Your task to perform on an android device: toggle javascript in the chrome app Image 0: 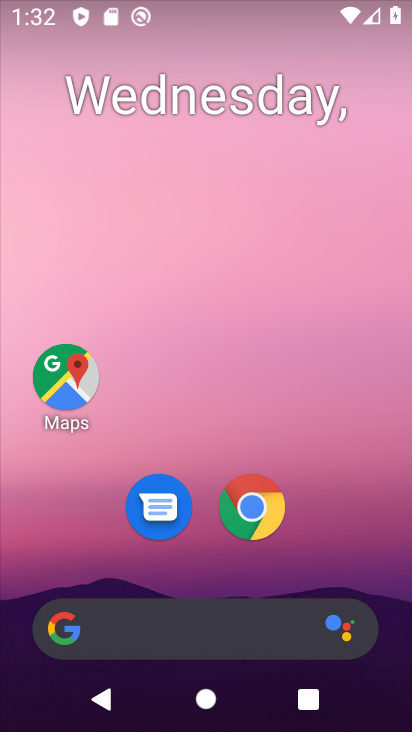
Step 0: click (264, 497)
Your task to perform on an android device: toggle javascript in the chrome app Image 1: 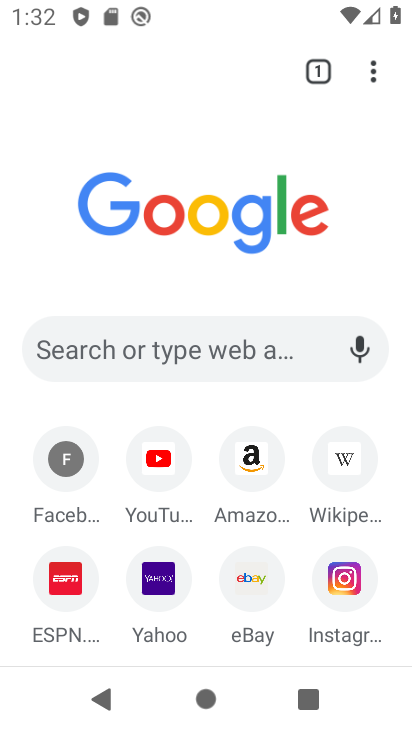
Step 1: click (366, 70)
Your task to perform on an android device: toggle javascript in the chrome app Image 2: 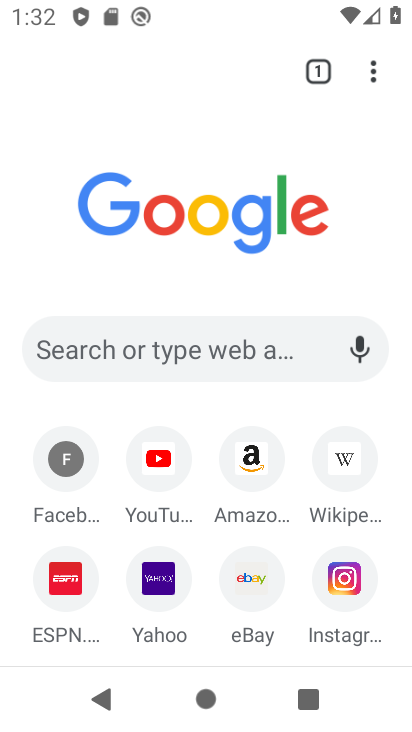
Step 2: click (375, 66)
Your task to perform on an android device: toggle javascript in the chrome app Image 3: 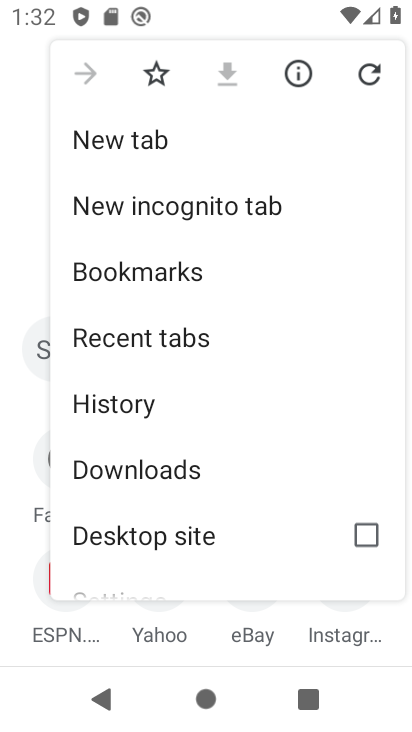
Step 3: drag from (232, 439) to (156, 556)
Your task to perform on an android device: toggle javascript in the chrome app Image 4: 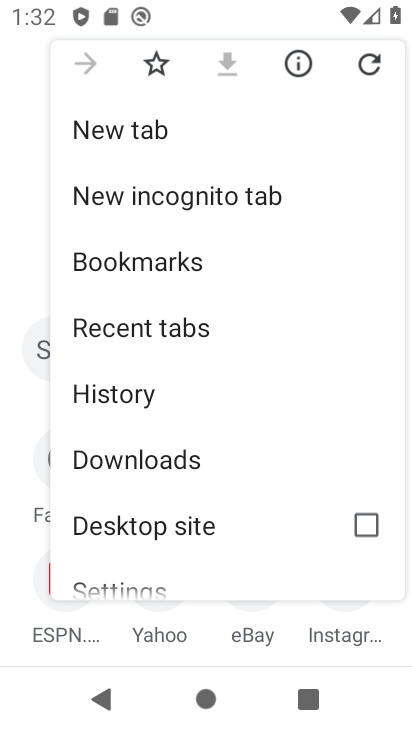
Step 4: click (158, 543)
Your task to perform on an android device: toggle javascript in the chrome app Image 5: 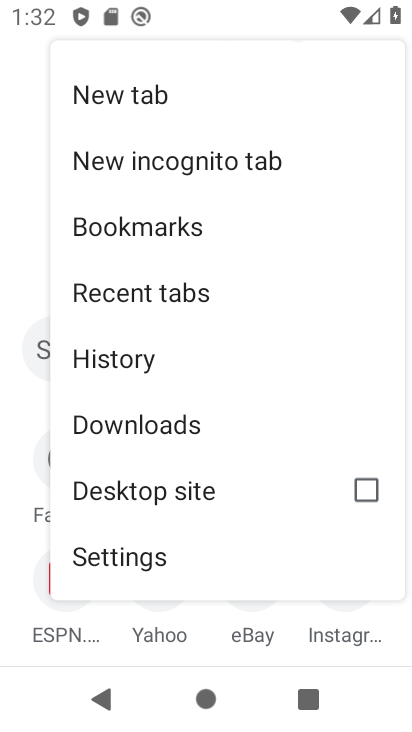
Step 5: click (132, 560)
Your task to perform on an android device: toggle javascript in the chrome app Image 6: 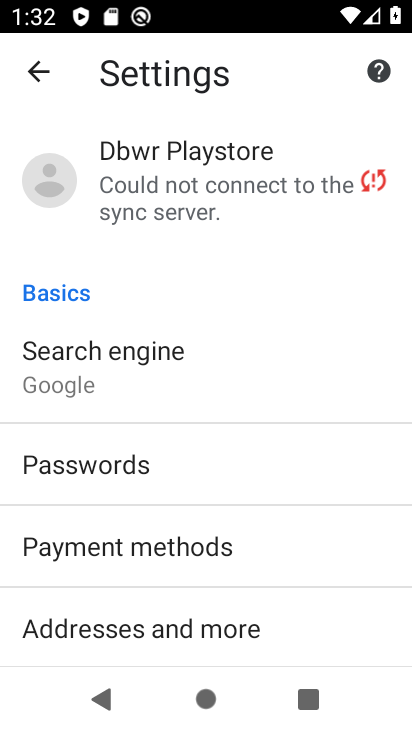
Step 6: drag from (250, 306) to (283, 519)
Your task to perform on an android device: toggle javascript in the chrome app Image 7: 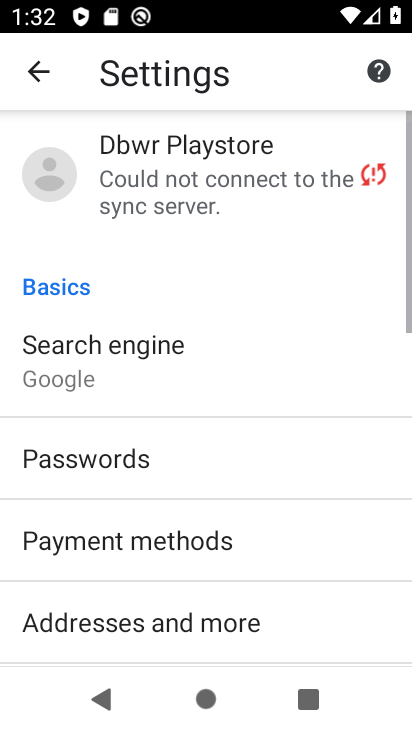
Step 7: drag from (282, 499) to (317, 497)
Your task to perform on an android device: toggle javascript in the chrome app Image 8: 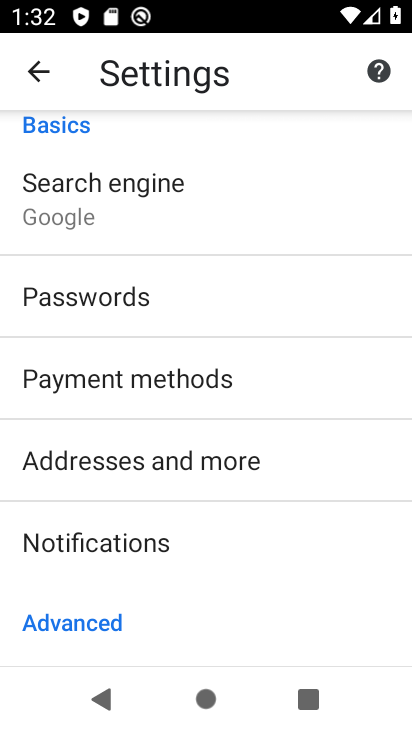
Step 8: drag from (350, 368) to (382, 511)
Your task to perform on an android device: toggle javascript in the chrome app Image 9: 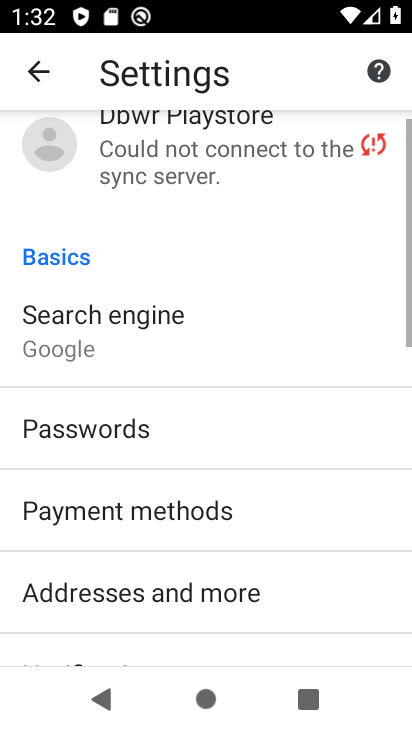
Step 9: drag from (400, 483) to (371, 517)
Your task to perform on an android device: toggle javascript in the chrome app Image 10: 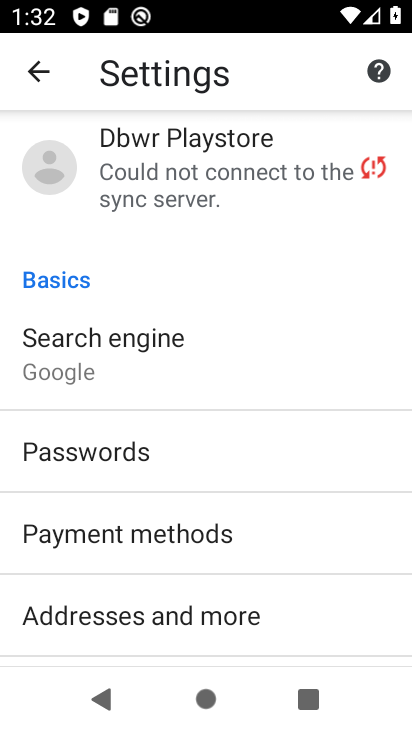
Step 10: drag from (288, 422) to (179, 299)
Your task to perform on an android device: toggle javascript in the chrome app Image 11: 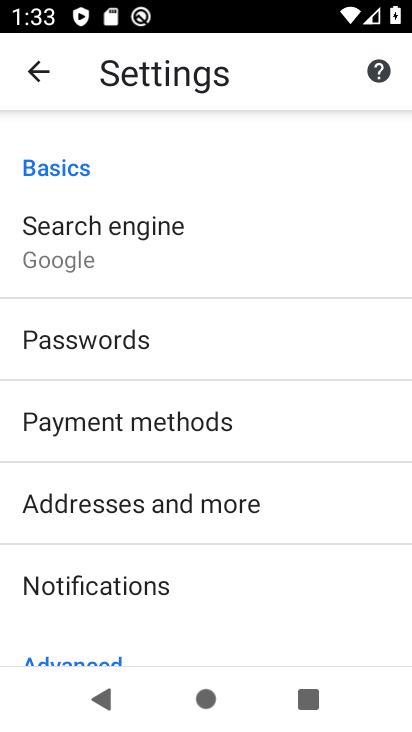
Step 11: click (306, 637)
Your task to perform on an android device: toggle javascript in the chrome app Image 12: 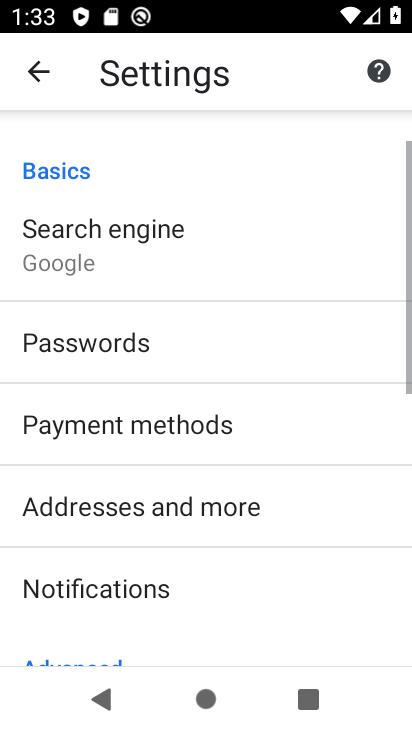
Step 12: drag from (313, 647) to (314, 591)
Your task to perform on an android device: toggle javascript in the chrome app Image 13: 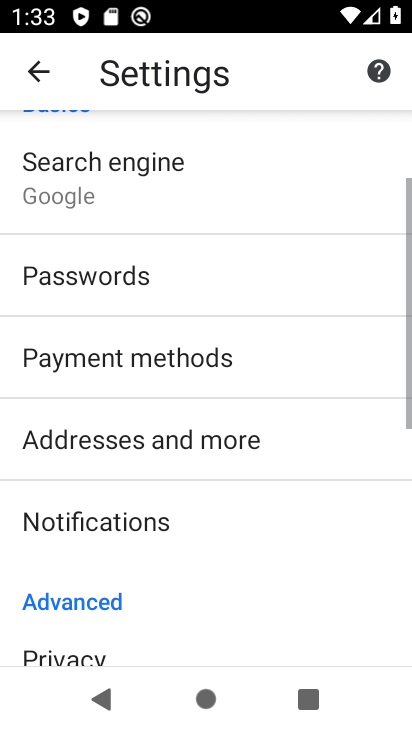
Step 13: click (238, 583)
Your task to perform on an android device: toggle javascript in the chrome app Image 14: 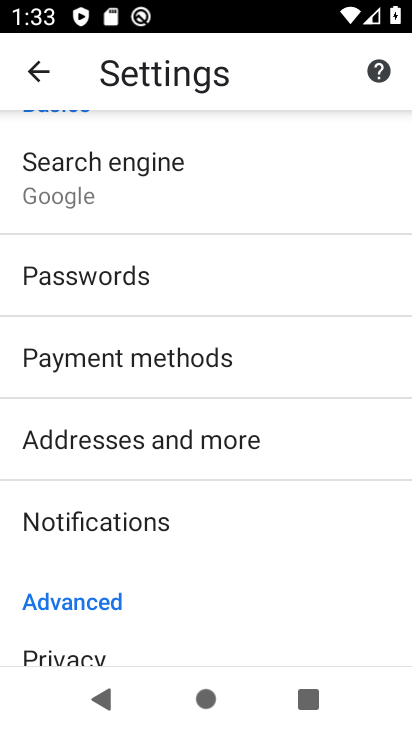
Step 14: click (268, 429)
Your task to perform on an android device: toggle javascript in the chrome app Image 15: 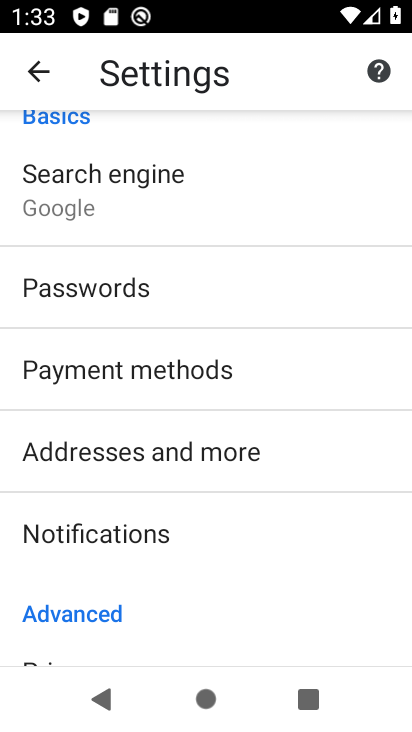
Step 15: click (361, 549)
Your task to perform on an android device: toggle javascript in the chrome app Image 16: 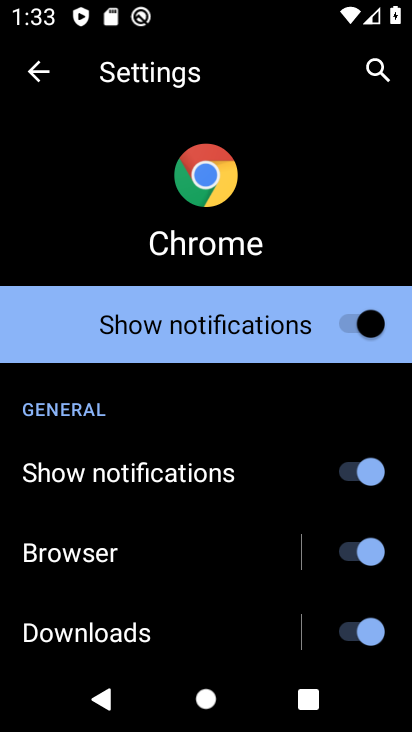
Step 16: click (25, 66)
Your task to perform on an android device: toggle javascript in the chrome app Image 17: 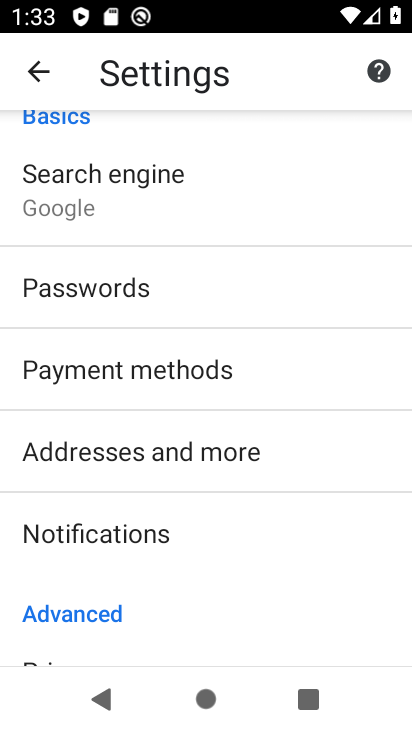
Step 17: drag from (296, 626) to (291, 481)
Your task to perform on an android device: toggle javascript in the chrome app Image 18: 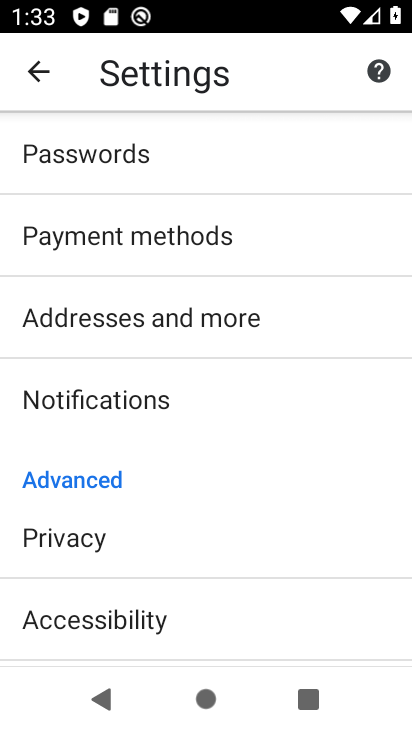
Step 18: drag from (334, 568) to (334, 426)
Your task to perform on an android device: toggle javascript in the chrome app Image 19: 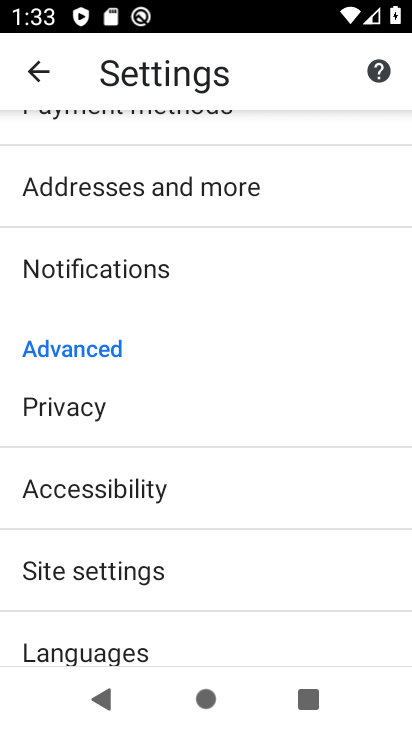
Step 19: click (59, 570)
Your task to perform on an android device: toggle javascript in the chrome app Image 20: 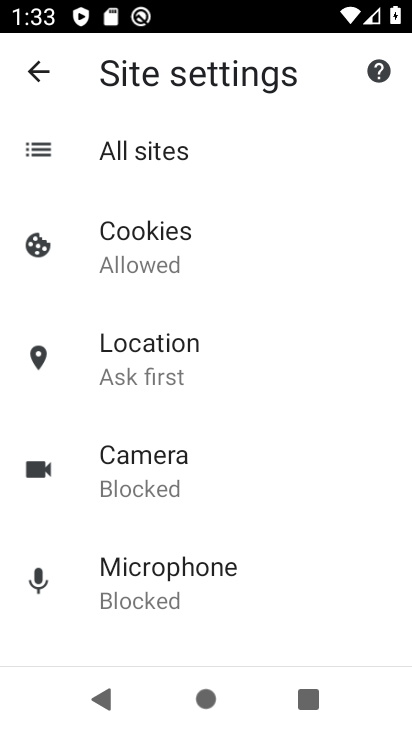
Step 20: drag from (289, 621) to (276, 357)
Your task to perform on an android device: toggle javascript in the chrome app Image 21: 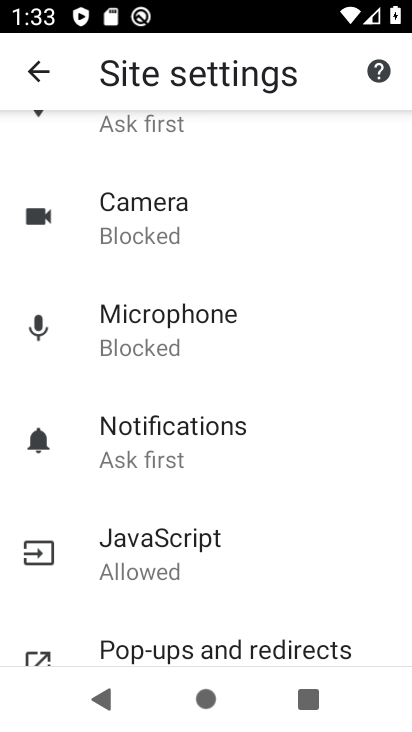
Step 21: click (135, 540)
Your task to perform on an android device: toggle javascript in the chrome app Image 22: 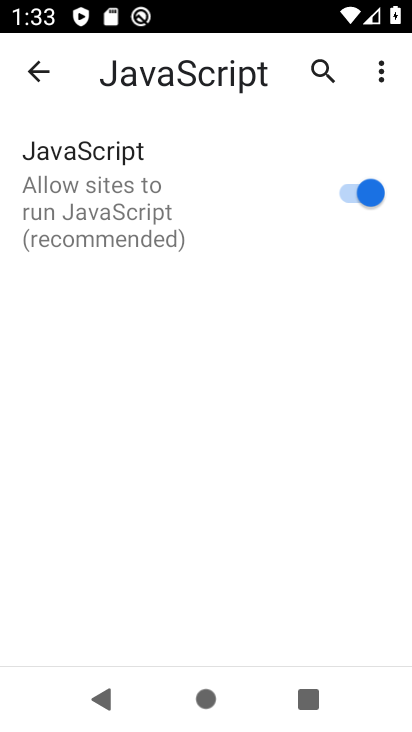
Step 22: click (347, 189)
Your task to perform on an android device: toggle javascript in the chrome app Image 23: 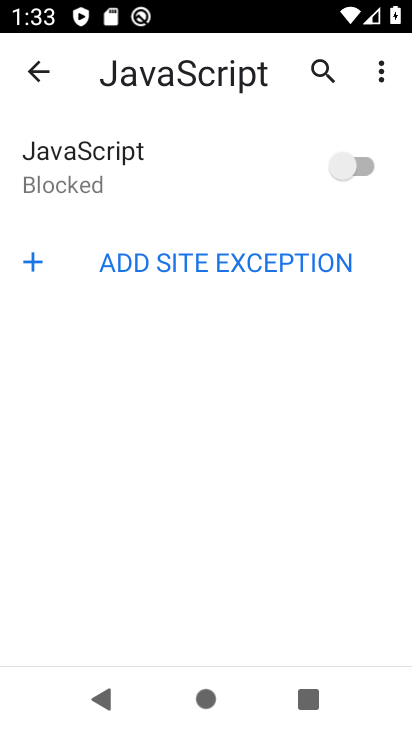
Step 23: task complete